Your task to perform on an android device: stop showing notifications on the lock screen Image 0: 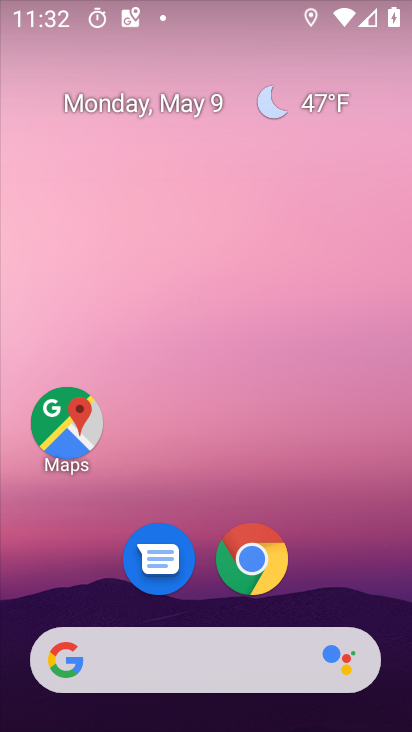
Step 0: click (243, 572)
Your task to perform on an android device: stop showing notifications on the lock screen Image 1: 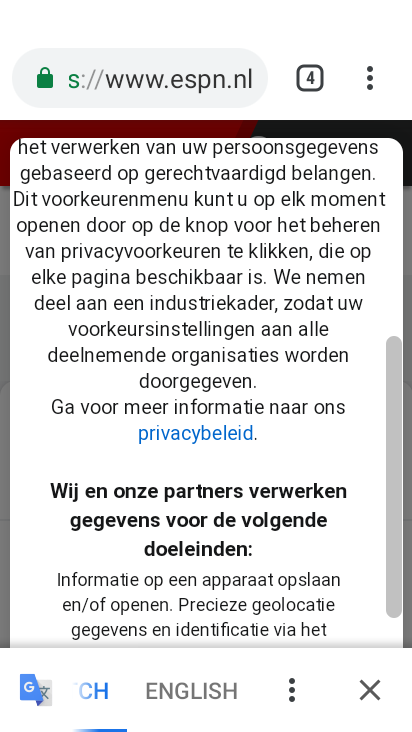
Step 1: press home button
Your task to perform on an android device: stop showing notifications on the lock screen Image 2: 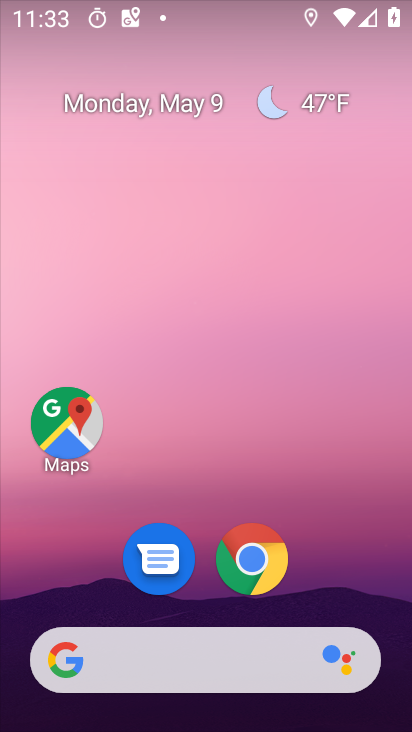
Step 2: drag from (378, 587) to (340, 31)
Your task to perform on an android device: stop showing notifications on the lock screen Image 3: 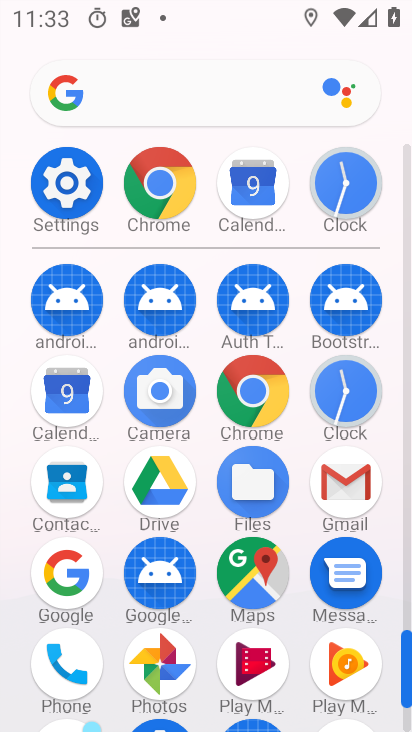
Step 3: click (74, 162)
Your task to perform on an android device: stop showing notifications on the lock screen Image 4: 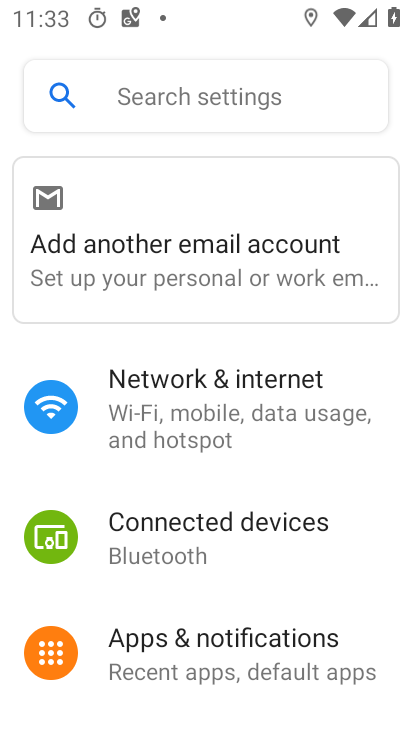
Step 4: click (197, 654)
Your task to perform on an android device: stop showing notifications on the lock screen Image 5: 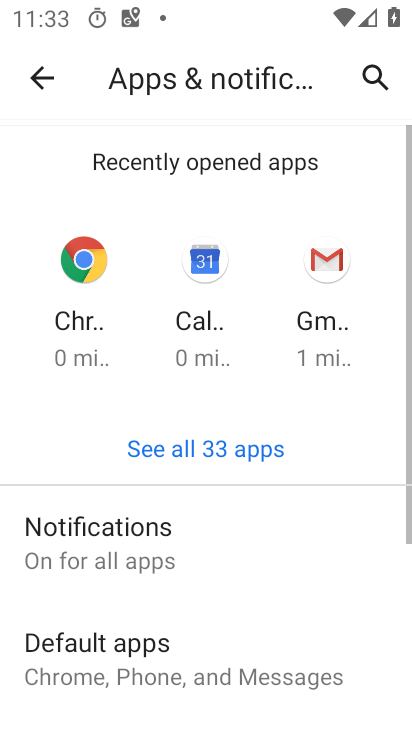
Step 5: drag from (221, 661) to (250, 147)
Your task to perform on an android device: stop showing notifications on the lock screen Image 6: 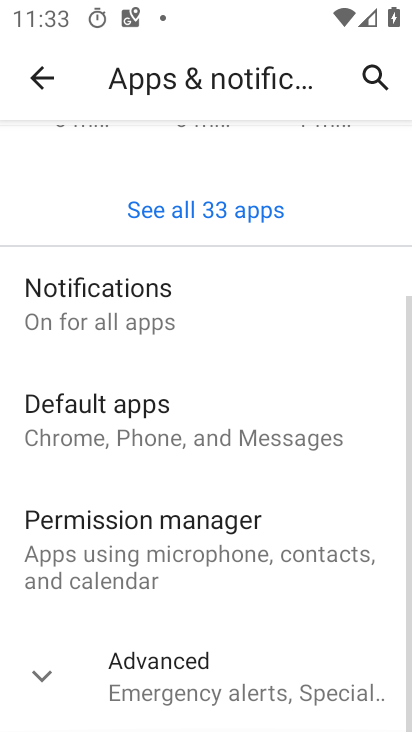
Step 6: drag from (288, 502) to (279, 369)
Your task to perform on an android device: stop showing notifications on the lock screen Image 7: 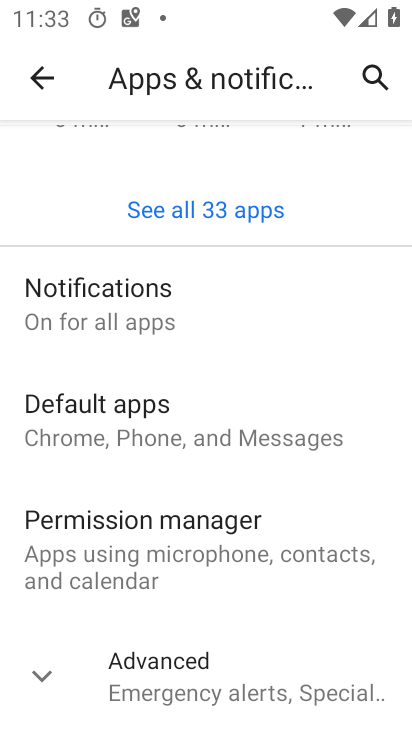
Step 7: click (225, 304)
Your task to perform on an android device: stop showing notifications on the lock screen Image 8: 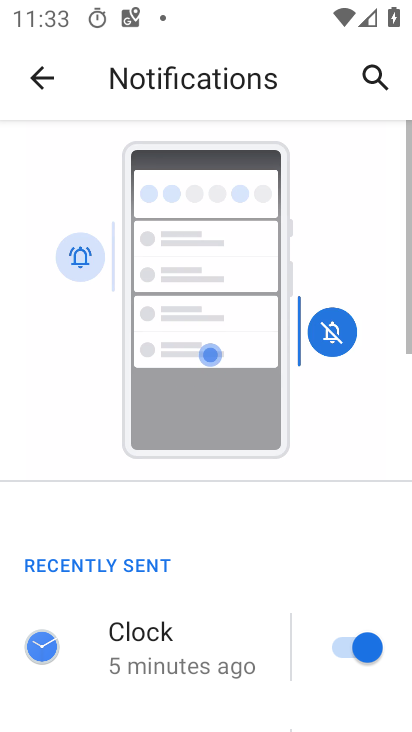
Step 8: drag from (237, 562) to (265, 98)
Your task to perform on an android device: stop showing notifications on the lock screen Image 9: 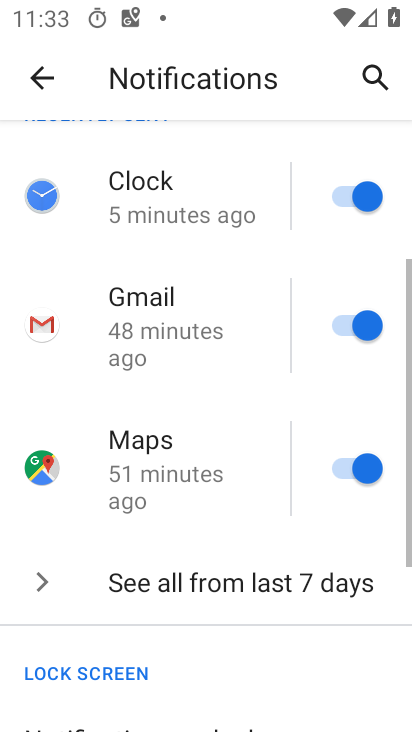
Step 9: drag from (230, 462) to (257, 96)
Your task to perform on an android device: stop showing notifications on the lock screen Image 10: 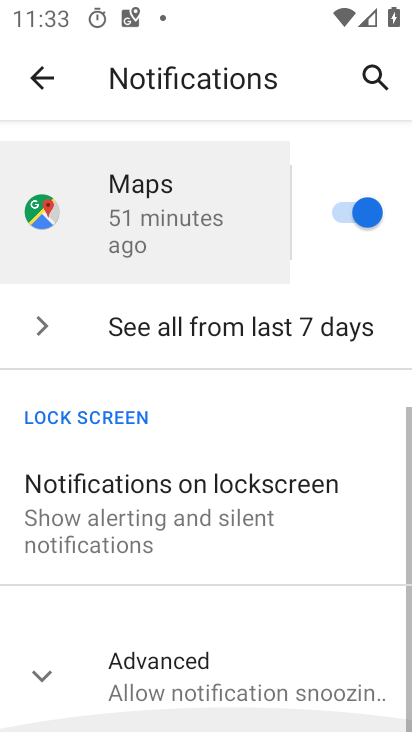
Step 10: drag from (259, 376) to (255, 102)
Your task to perform on an android device: stop showing notifications on the lock screen Image 11: 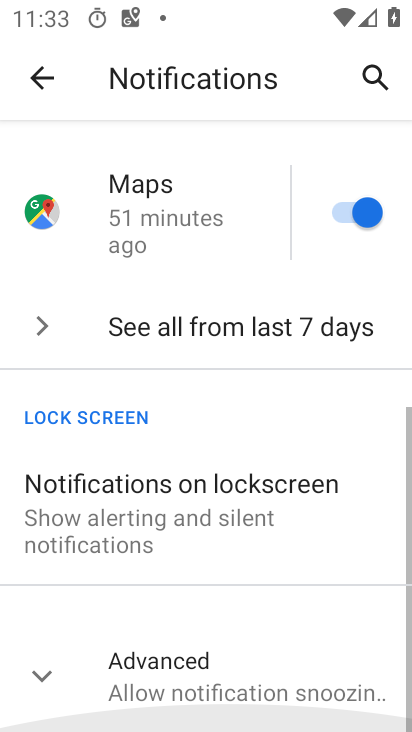
Step 11: drag from (265, 422) to (250, 227)
Your task to perform on an android device: stop showing notifications on the lock screen Image 12: 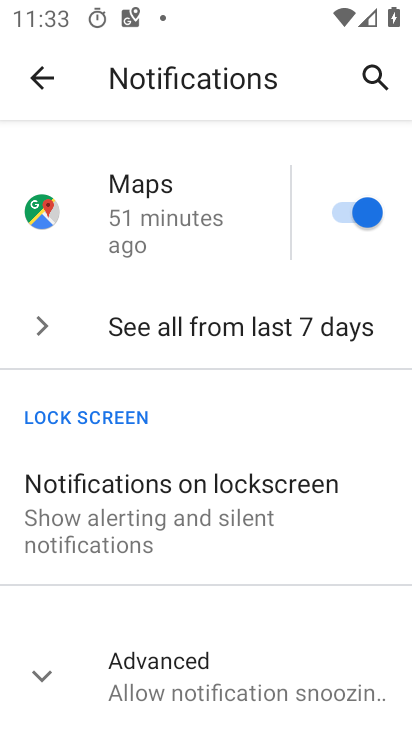
Step 12: click (260, 470)
Your task to perform on an android device: stop showing notifications on the lock screen Image 13: 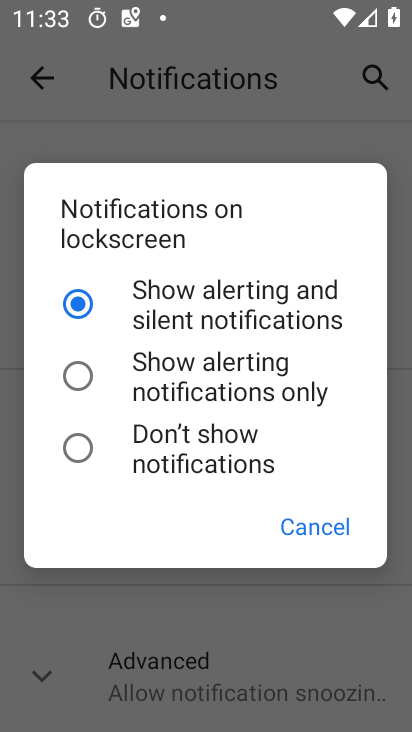
Step 13: click (268, 393)
Your task to perform on an android device: stop showing notifications on the lock screen Image 14: 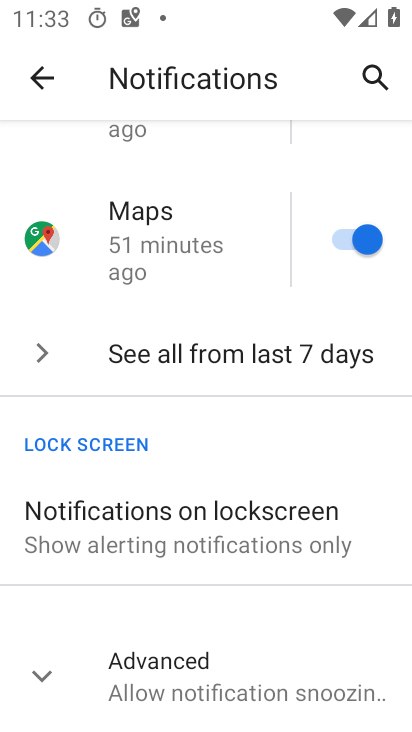
Step 14: task complete